Your task to perform on an android device: turn off smart reply in the gmail app Image 0: 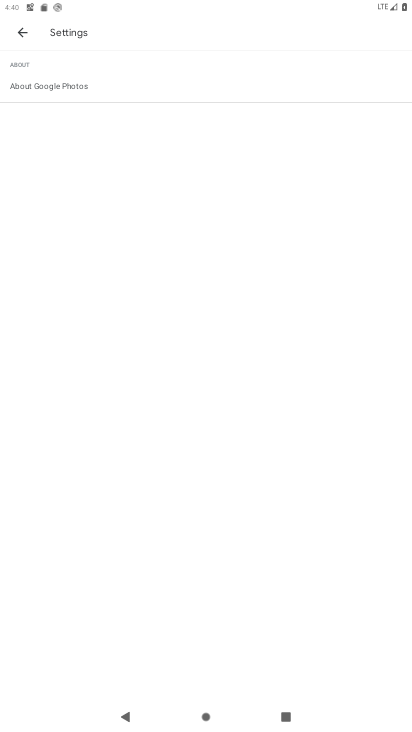
Step 0: press home button
Your task to perform on an android device: turn off smart reply in the gmail app Image 1: 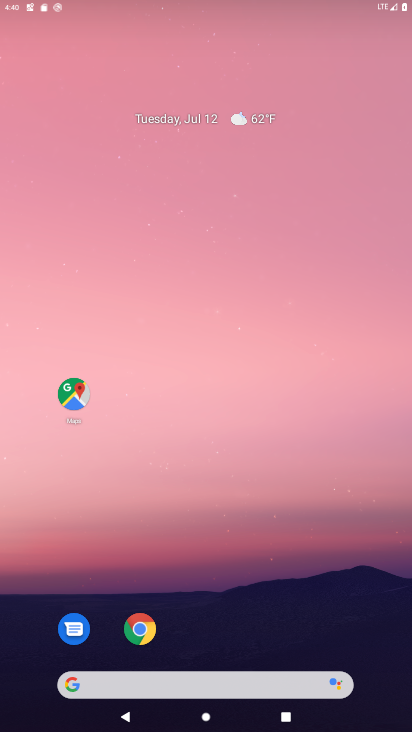
Step 1: drag from (239, 540) to (243, 4)
Your task to perform on an android device: turn off smart reply in the gmail app Image 2: 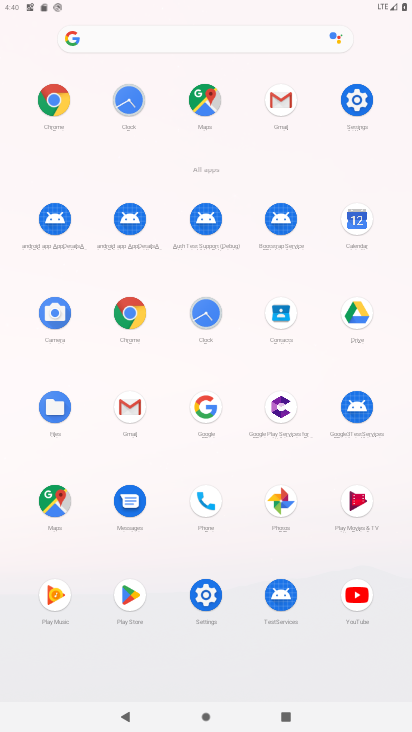
Step 2: click (277, 92)
Your task to perform on an android device: turn off smart reply in the gmail app Image 3: 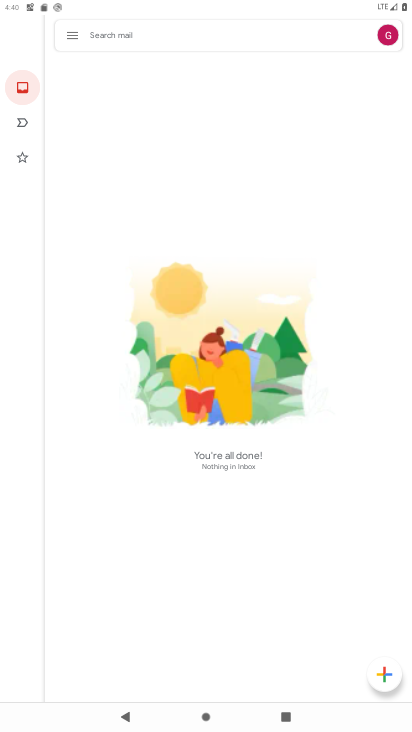
Step 3: click (68, 34)
Your task to perform on an android device: turn off smart reply in the gmail app Image 4: 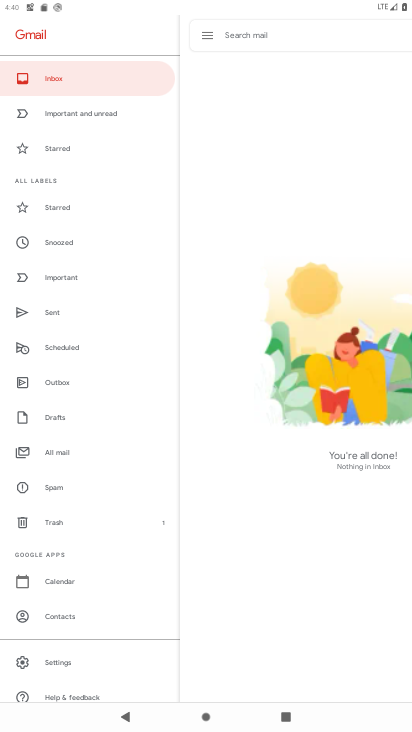
Step 4: click (73, 667)
Your task to perform on an android device: turn off smart reply in the gmail app Image 5: 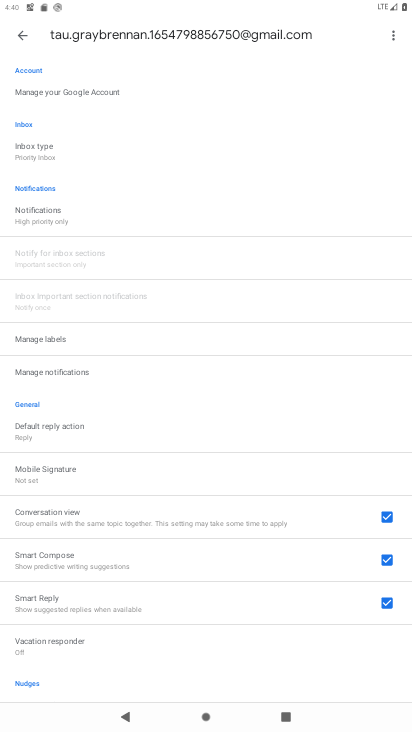
Step 5: drag from (124, 541) to (211, 83)
Your task to perform on an android device: turn off smart reply in the gmail app Image 6: 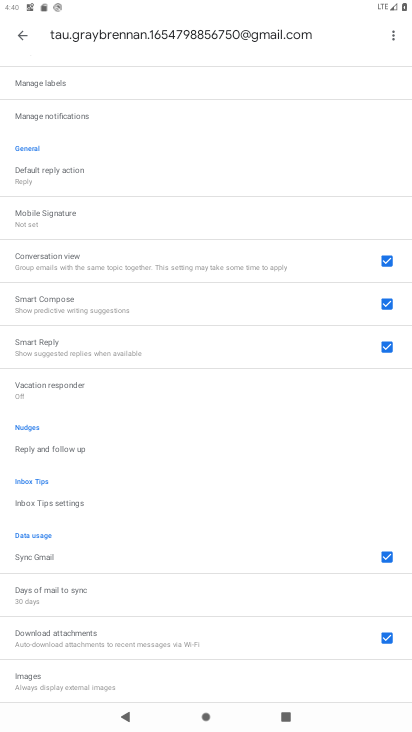
Step 6: click (394, 351)
Your task to perform on an android device: turn off smart reply in the gmail app Image 7: 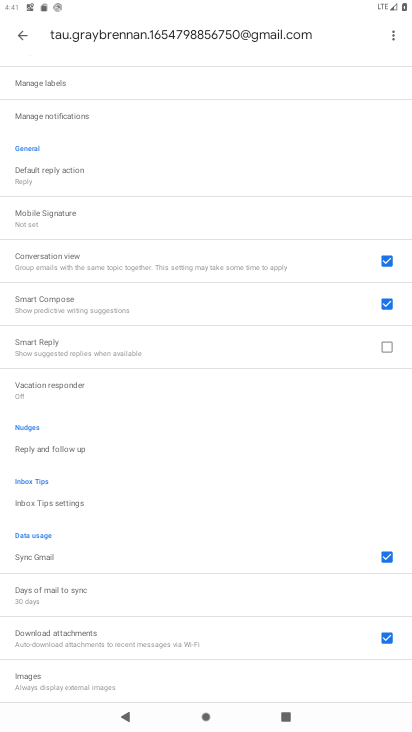
Step 7: task complete